Your task to perform on an android device: Is it going to rain this weekend? Image 0: 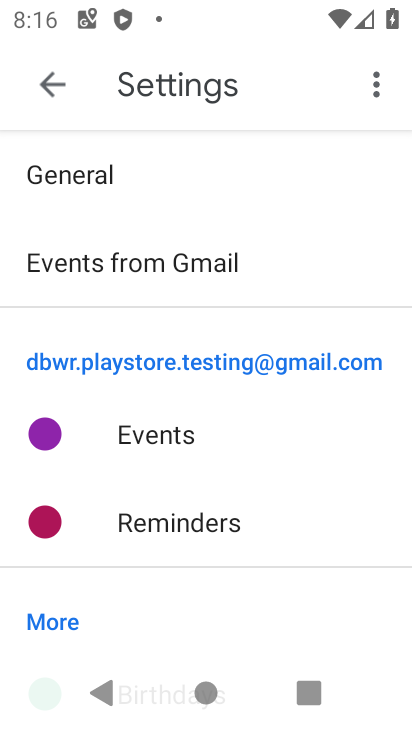
Step 0: press back button
Your task to perform on an android device: Is it going to rain this weekend? Image 1: 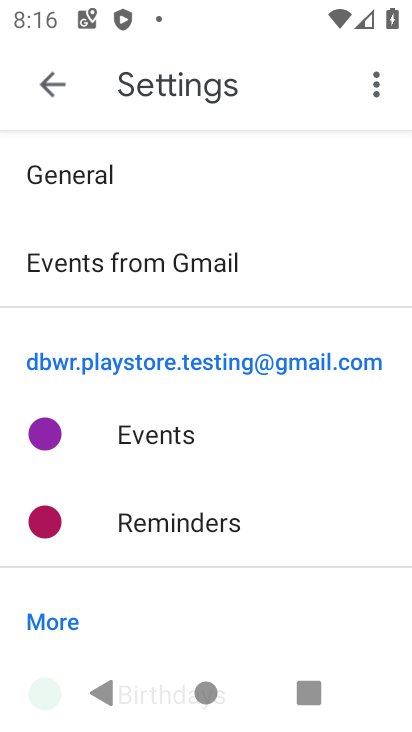
Step 1: task complete